Your task to perform on an android device: Open Youtube and go to the subscriptions tab Image 0: 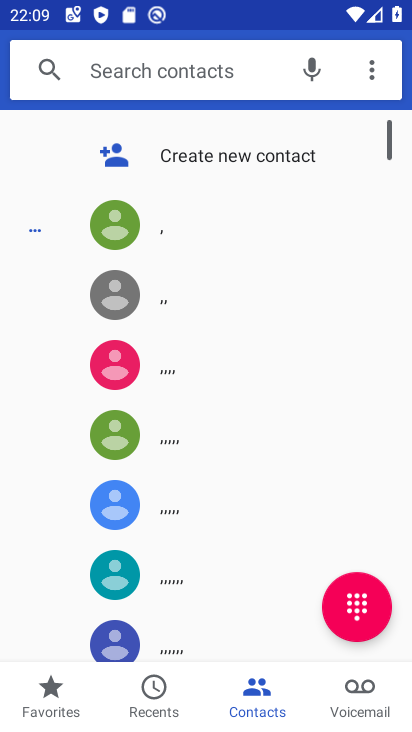
Step 0: press home button
Your task to perform on an android device: Open Youtube and go to the subscriptions tab Image 1: 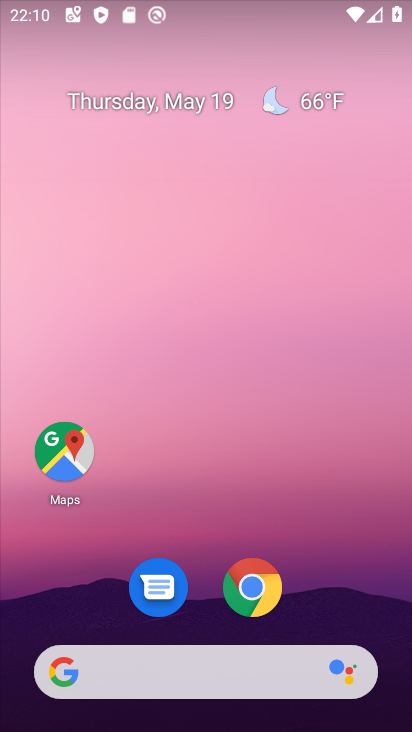
Step 1: drag from (276, 708) to (201, 288)
Your task to perform on an android device: Open Youtube and go to the subscriptions tab Image 2: 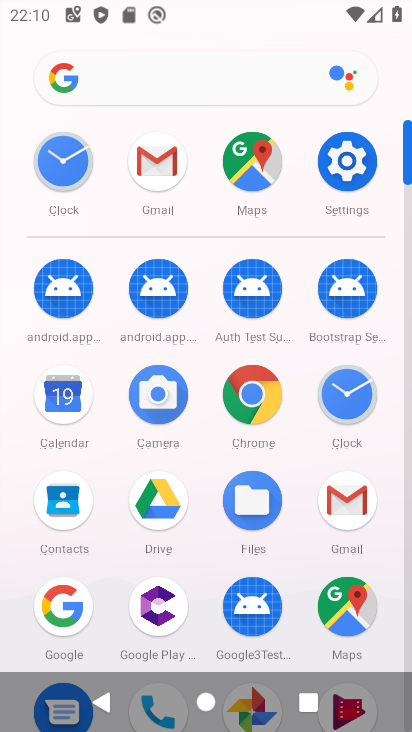
Step 2: drag from (202, 449) to (210, 306)
Your task to perform on an android device: Open Youtube and go to the subscriptions tab Image 3: 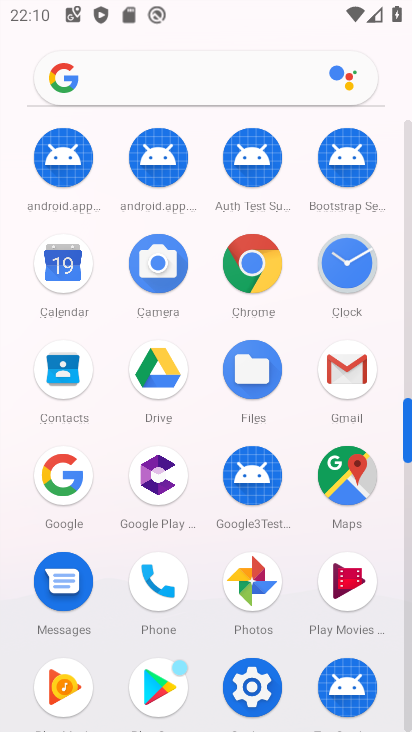
Step 3: drag from (124, 612) to (115, 455)
Your task to perform on an android device: Open Youtube and go to the subscriptions tab Image 4: 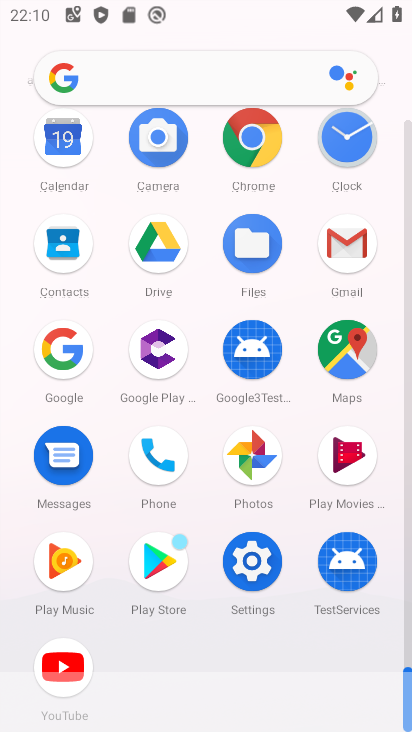
Step 4: click (81, 661)
Your task to perform on an android device: Open Youtube and go to the subscriptions tab Image 5: 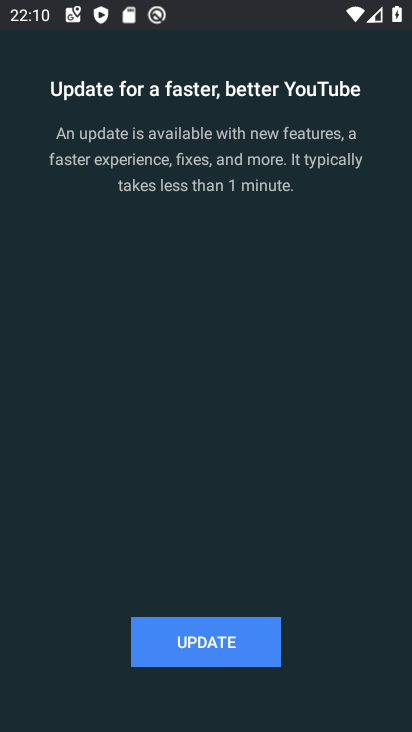
Step 5: click (208, 645)
Your task to perform on an android device: Open Youtube and go to the subscriptions tab Image 6: 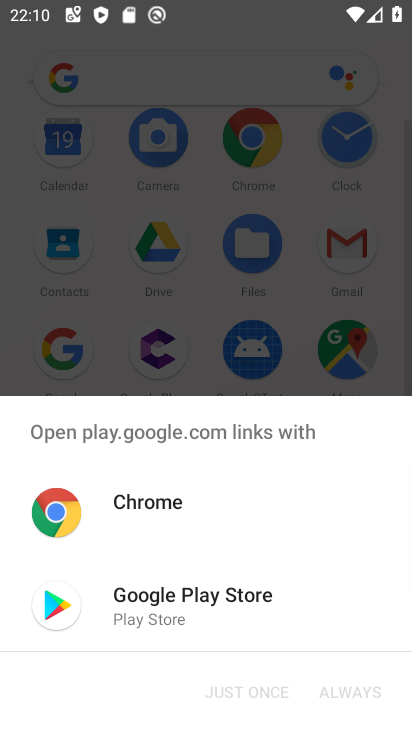
Step 6: click (183, 627)
Your task to perform on an android device: Open Youtube and go to the subscriptions tab Image 7: 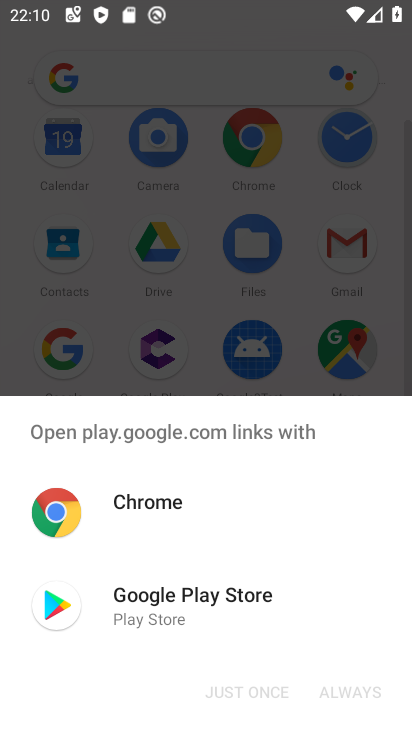
Step 7: click (198, 644)
Your task to perform on an android device: Open Youtube and go to the subscriptions tab Image 8: 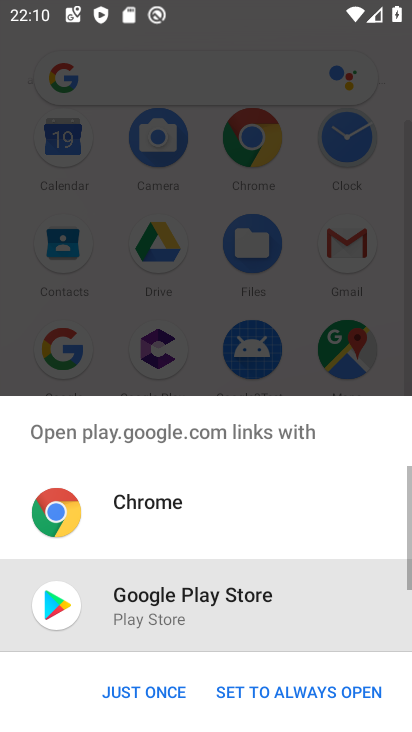
Step 8: click (155, 693)
Your task to perform on an android device: Open Youtube and go to the subscriptions tab Image 9: 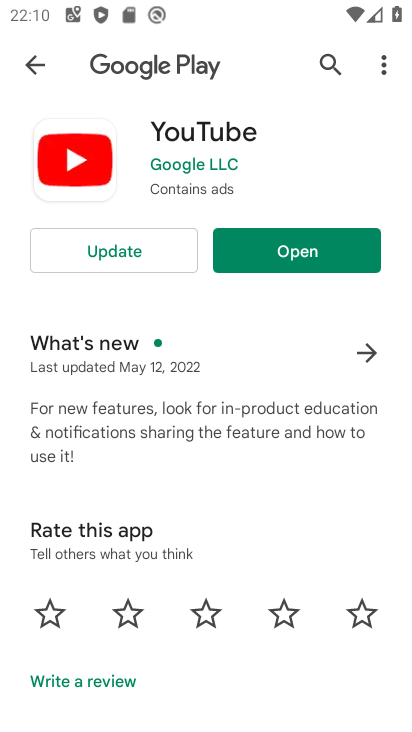
Step 9: click (107, 256)
Your task to perform on an android device: Open Youtube and go to the subscriptions tab Image 10: 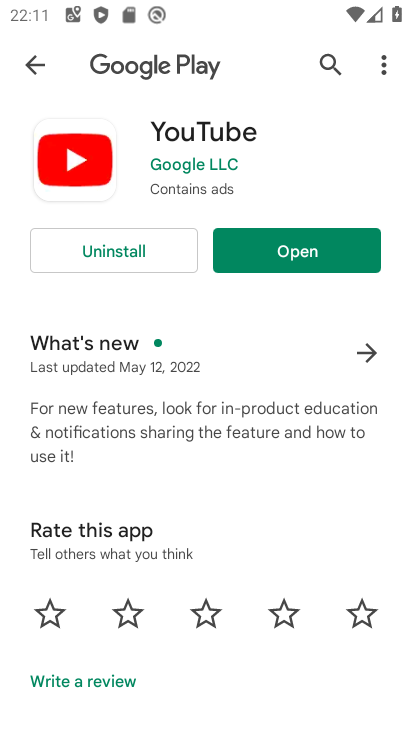
Step 10: click (269, 242)
Your task to perform on an android device: Open Youtube and go to the subscriptions tab Image 11: 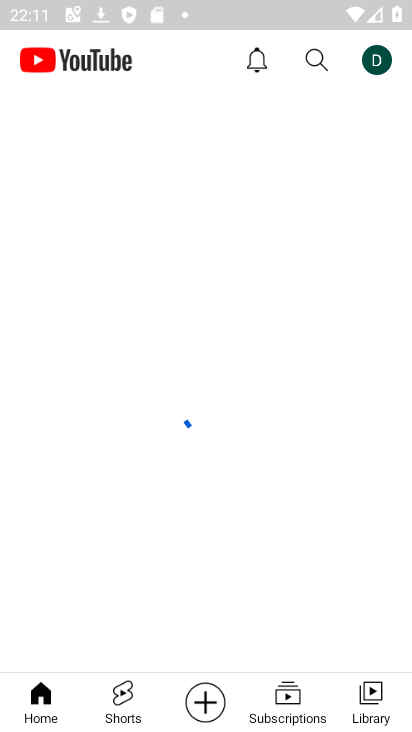
Step 11: click (282, 707)
Your task to perform on an android device: Open Youtube and go to the subscriptions tab Image 12: 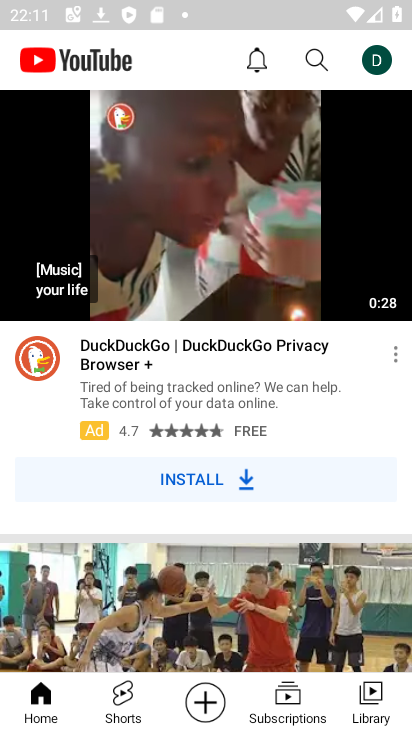
Step 12: click (304, 710)
Your task to perform on an android device: Open Youtube and go to the subscriptions tab Image 13: 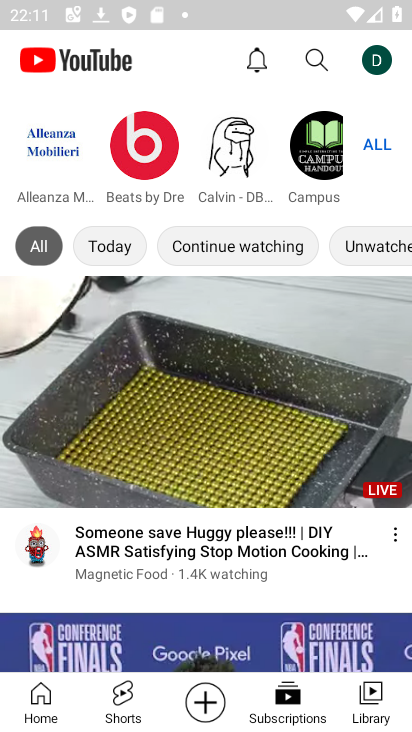
Step 13: task complete